Your task to perform on an android device: Go to Android settings Image 0: 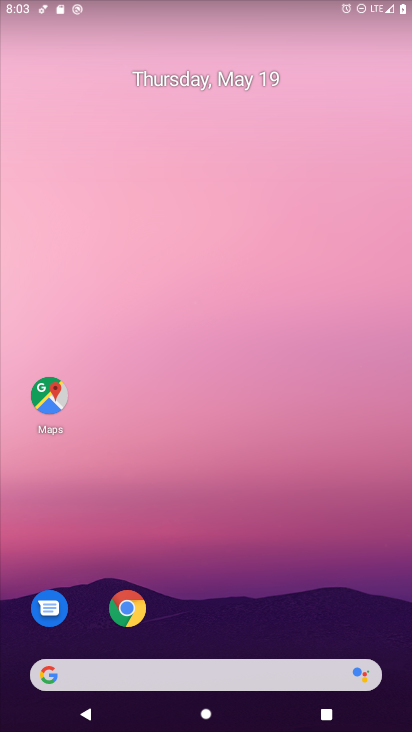
Step 0: click (386, 483)
Your task to perform on an android device: Go to Android settings Image 1: 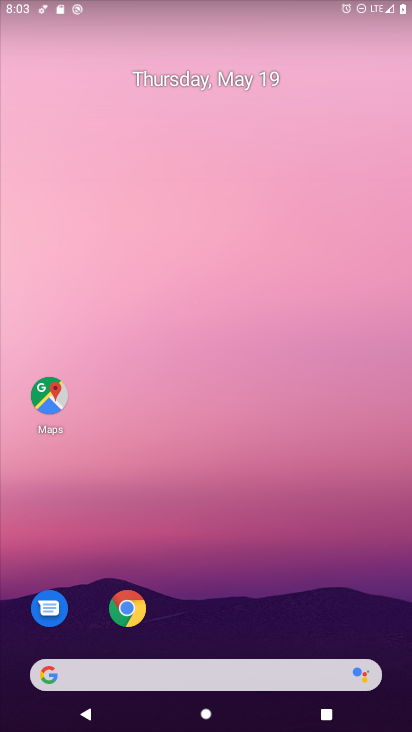
Step 1: drag from (397, 669) to (333, 184)
Your task to perform on an android device: Go to Android settings Image 2: 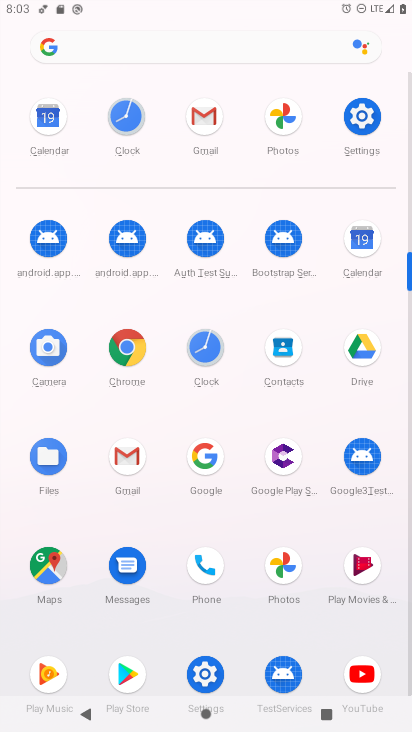
Step 2: click (362, 96)
Your task to perform on an android device: Go to Android settings Image 3: 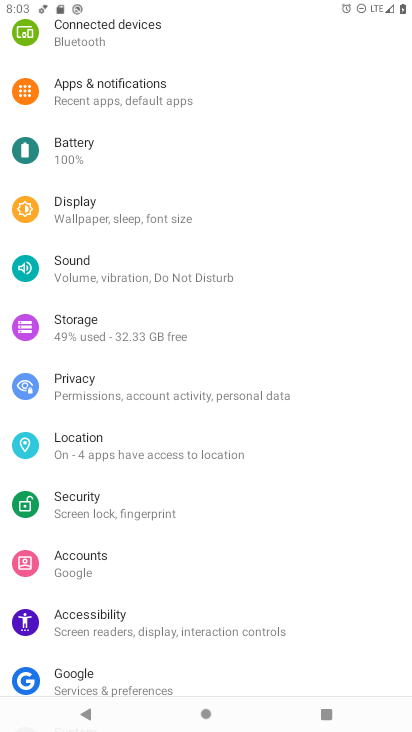
Step 3: task complete